Your task to perform on an android device: Go to battery settings Image 0: 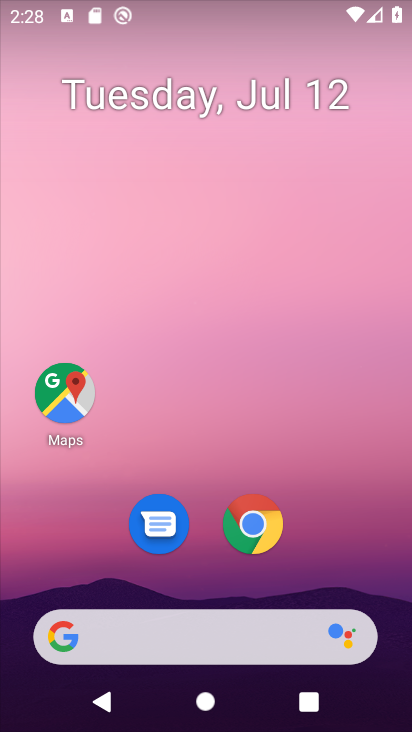
Step 0: drag from (320, 522) to (257, 18)
Your task to perform on an android device: Go to battery settings Image 1: 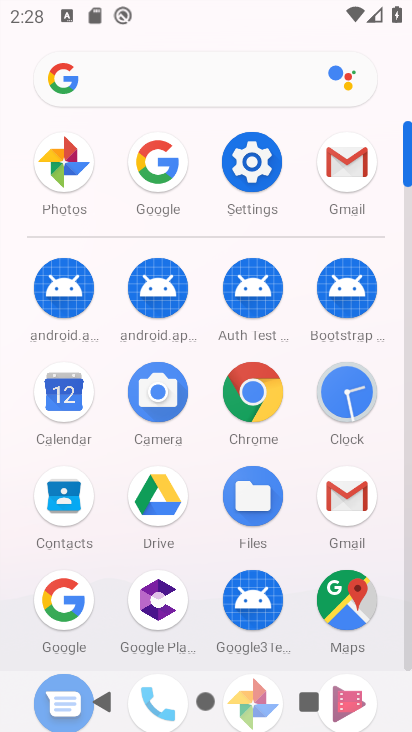
Step 1: click (255, 161)
Your task to perform on an android device: Go to battery settings Image 2: 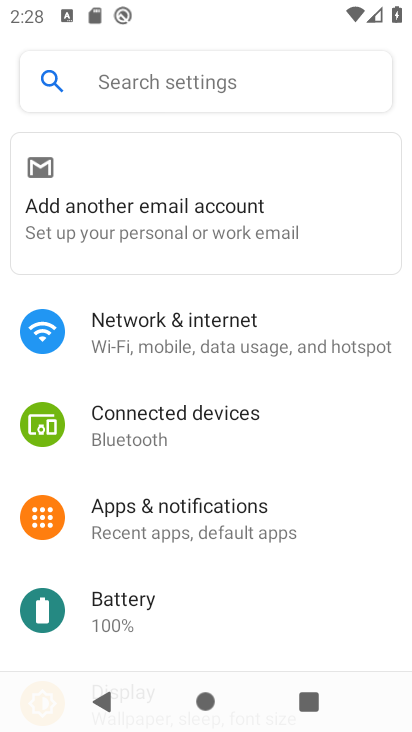
Step 2: click (138, 607)
Your task to perform on an android device: Go to battery settings Image 3: 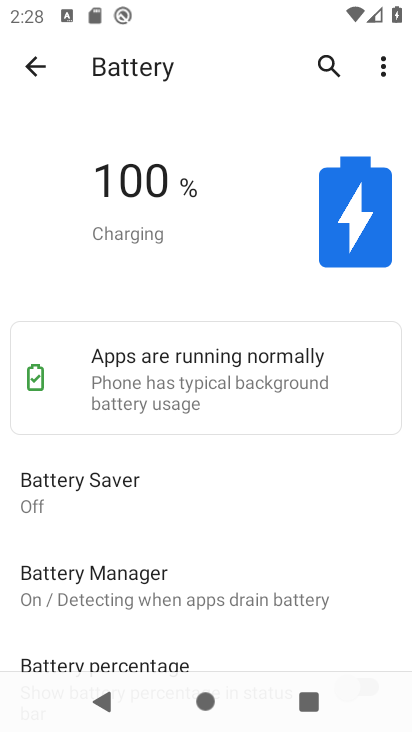
Step 3: task complete